Your task to perform on an android device: change notification settings in the gmail app Image 0: 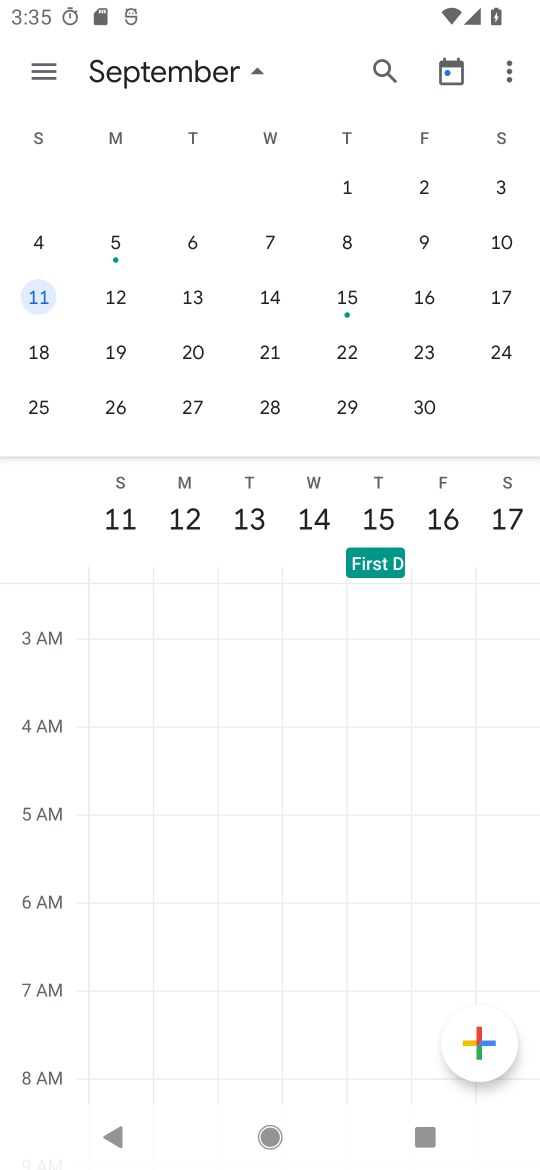
Step 0: press home button
Your task to perform on an android device: change notification settings in the gmail app Image 1: 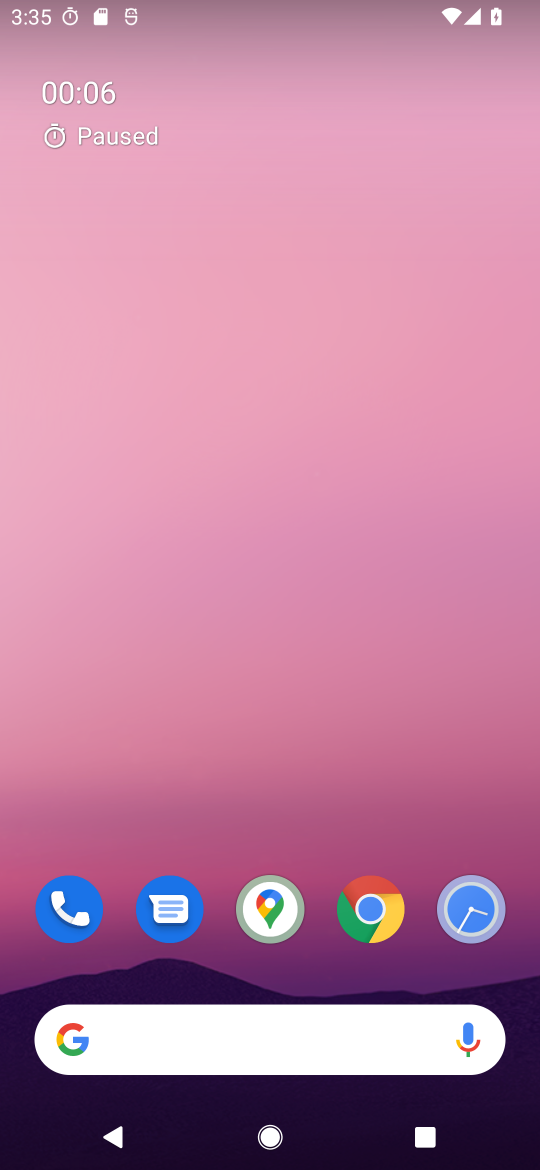
Step 1: drag from (268, 960) to (244, 192)
Your task to perform on an android device: change notification settings in the gmail app Image 2: 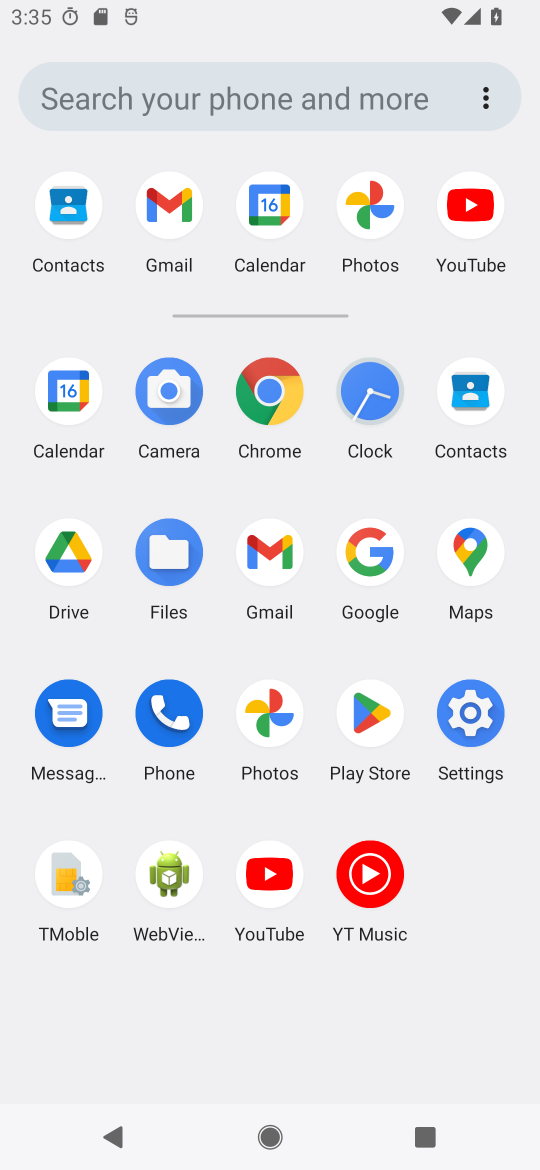
Step 2: click (255, 552)
Your task to perform on an android device: change notification settings in the gmail app Image 3: 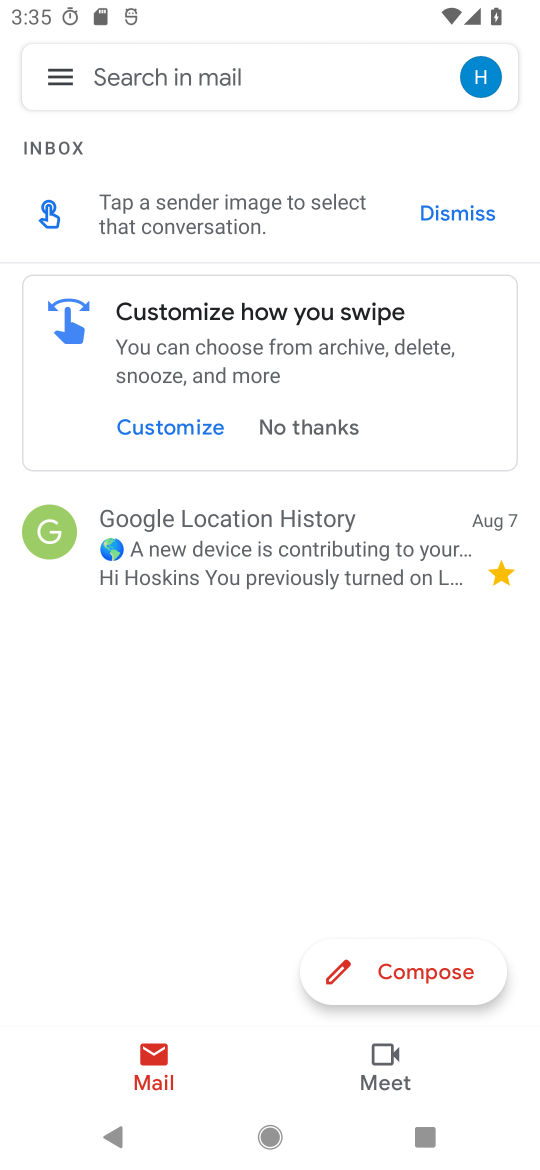
Step 3: click (59, 89)
Your task to perform on an android device: change notification settings in the gmail app Image 4: 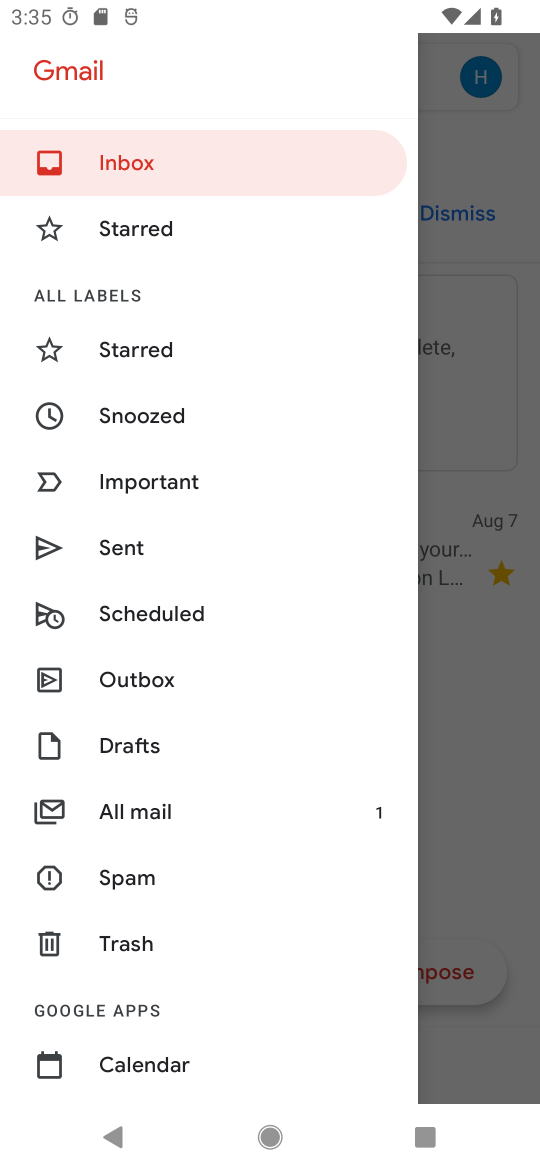
Step 4: drag from (168, 961) to (185, 548)
Your task to perform on an android device: change notification settings in the gmail app Image 5: 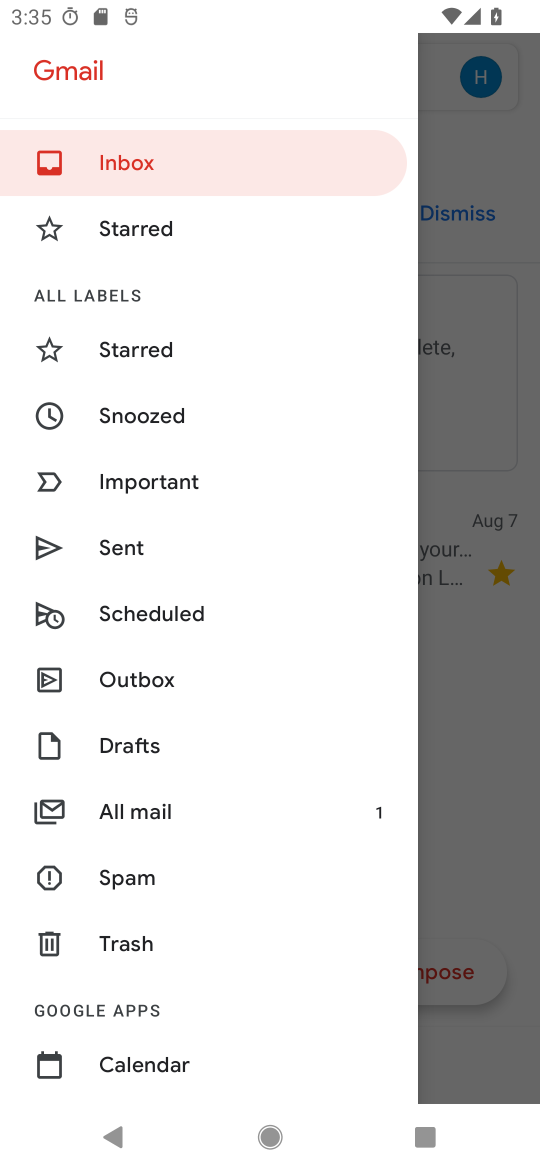
Step 5: drag from (281, 874) to (352, 4)
Your task to perform on an android device: change notification settings in the gmail app Image 6: 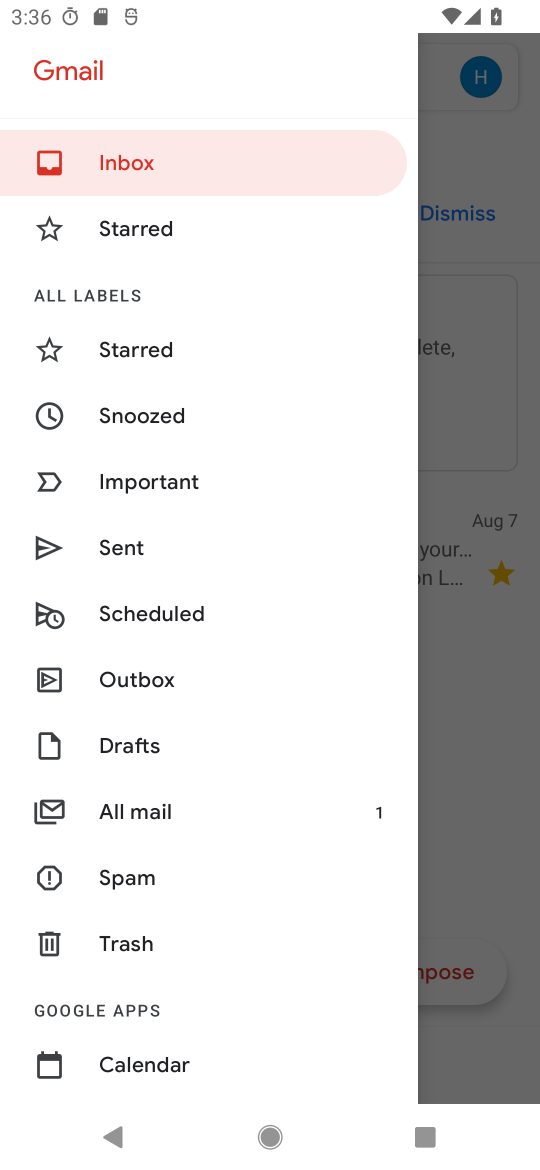
Step 6: drag from (218, 972) to (215, 562)
Your task to perform on an android device: change notification settings in the gmail app Image 7: 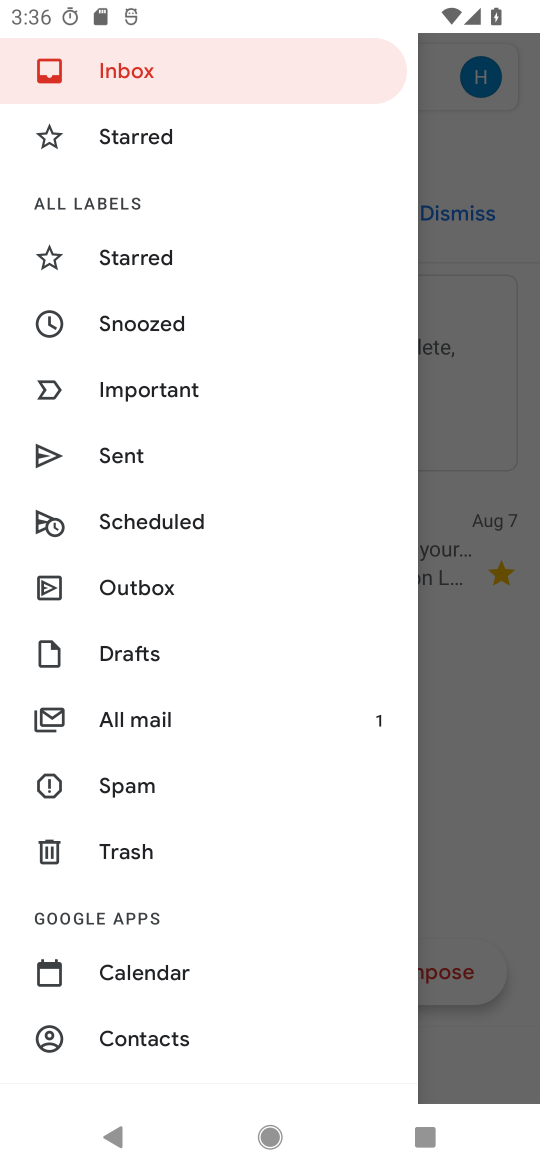
Step 7: drag from (358, 935) to (358, 342)
Your task to perform on an android device: change notification settings in the gmail app Image 8: 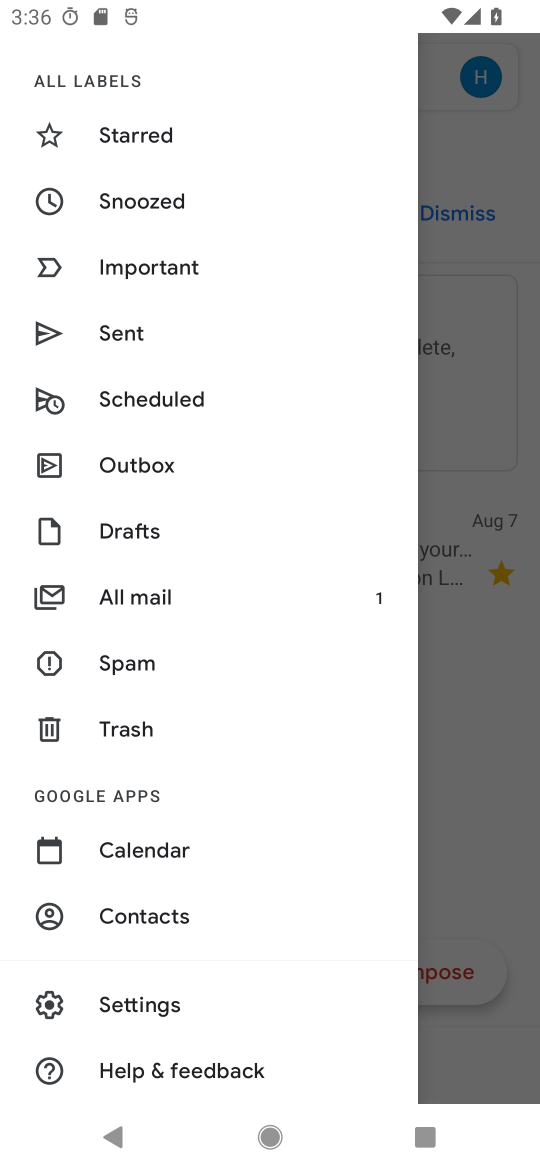
Step 8: click (138, 998)
Your task to perform on an android device: change notification settings in the gmail app Image 9: 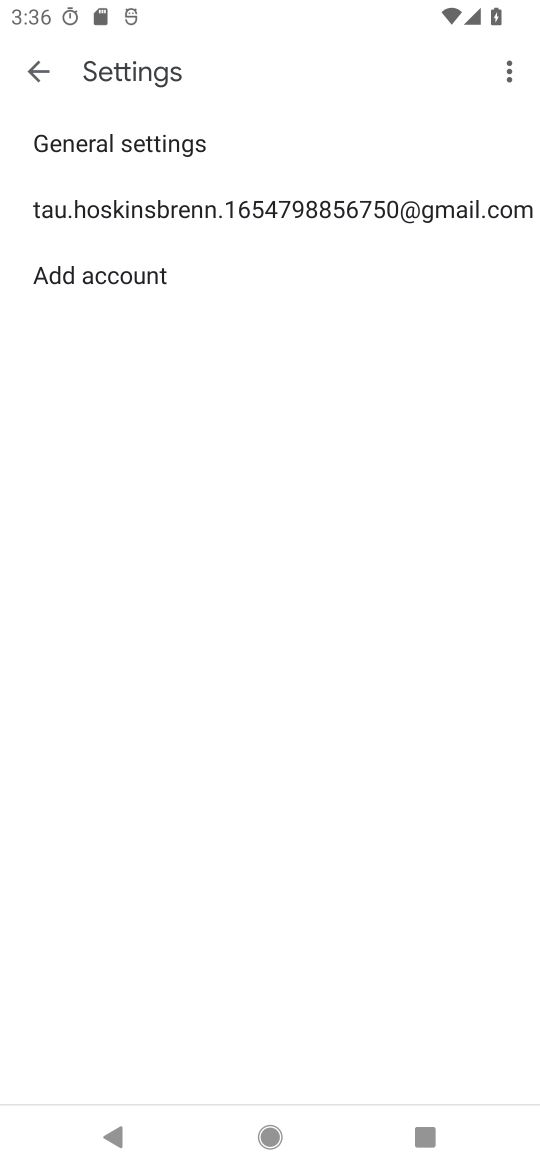
Step 9: click (337, 219)
Your task to perform on an android device: change notification settings in the gmail app Image 10: 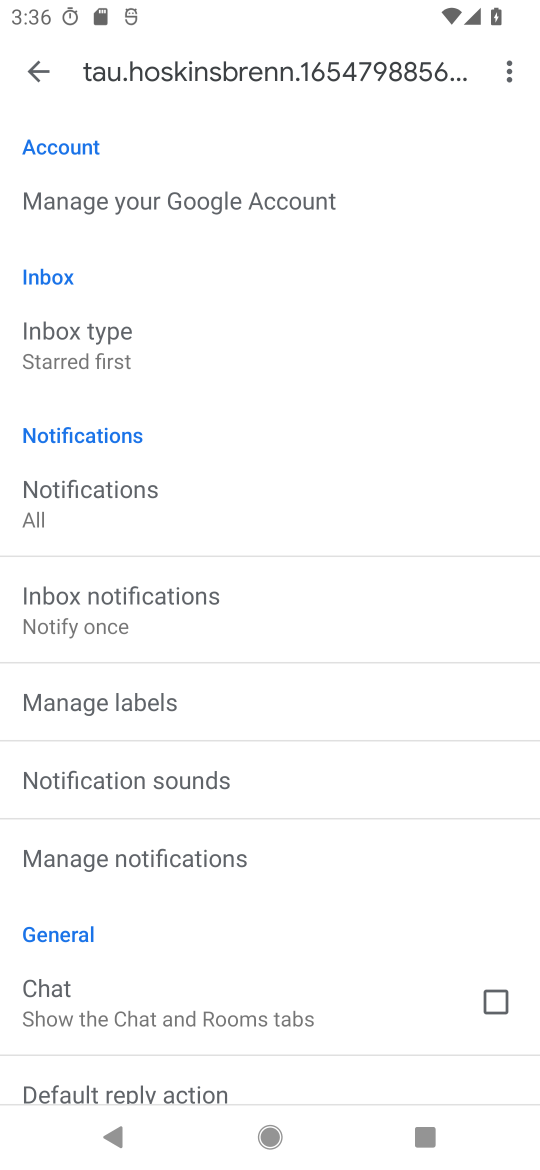
Step 10: click (198, 856)
Your task to perform on an android device: change notification settings in the gmail app Image 11: 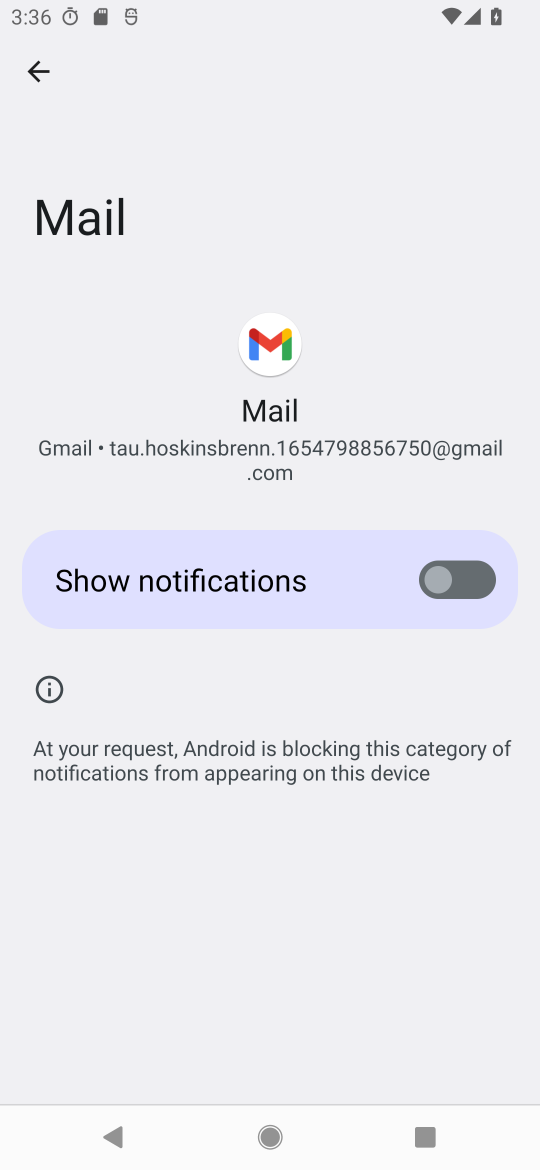
Step 11: click (496, 585)
Your task to perform on an android device: change notification settings in the gmail app Image 12: 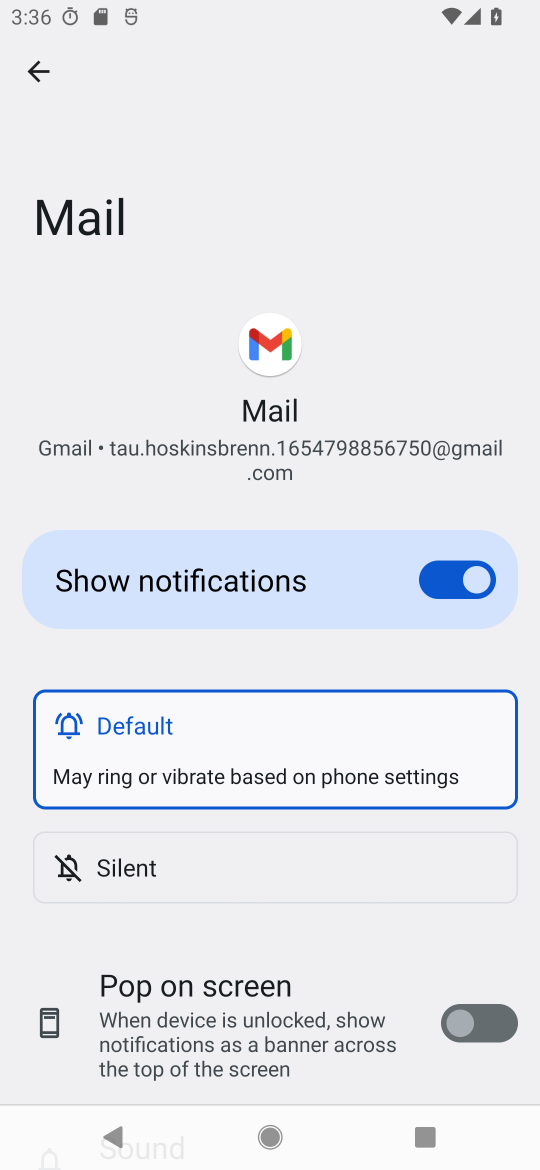
Step 12: task complete